Your task to perform on an android device: Go to ESPN.com Image 0: 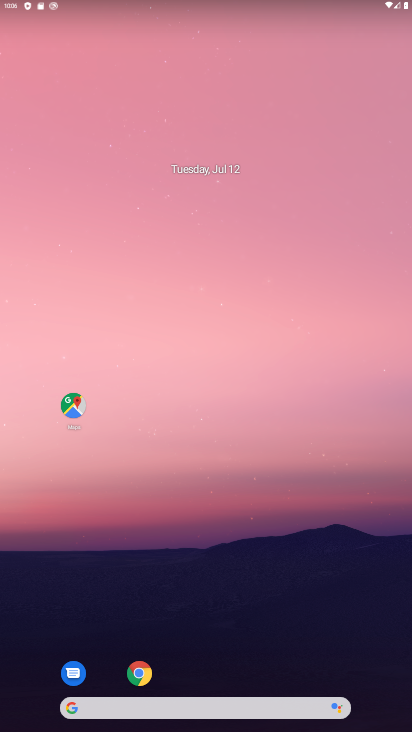
Step 0: drag from (257, 503) to (244, 95)
Your task to perform on an android device: Go to ESPN.com Image 1: 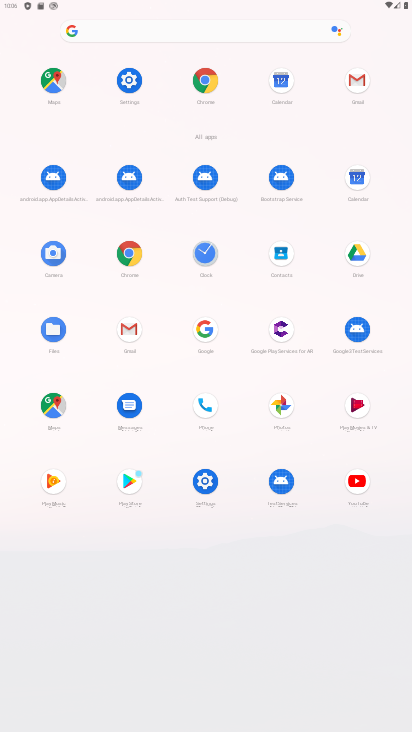
Step 1: click (205, 80)
Your task to perform on an android device: Go to ESPN.com Image 2: 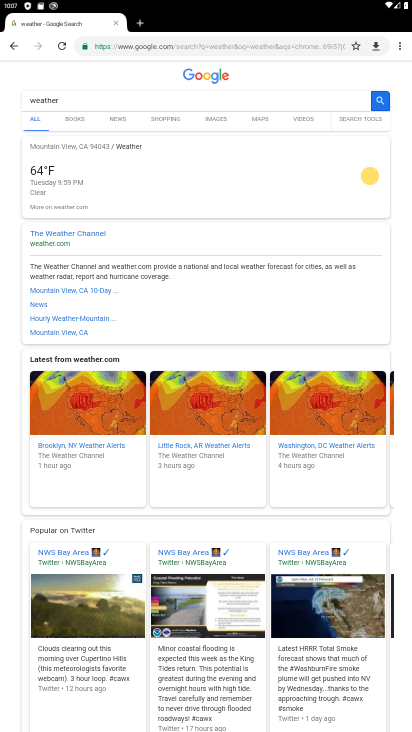
Step 2: click (194, 43)
Your task to perform on an android device: Go to ESPN.com Image 3: 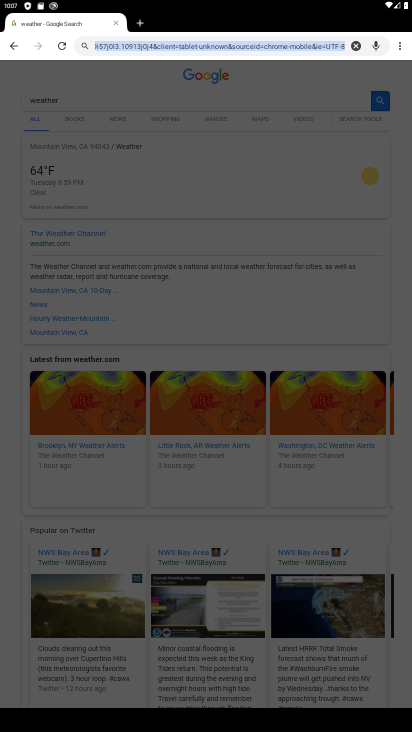
Step 3: type "espn.com"
Your task to perform on an android device: Go to ESPN.com Image 4: 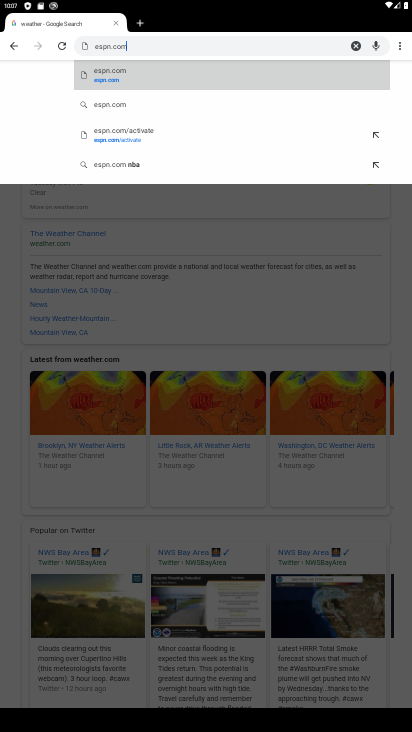
Step 4: click (105, 82)
Your task to perform on an android device: Go to ESPN.com Image 5: 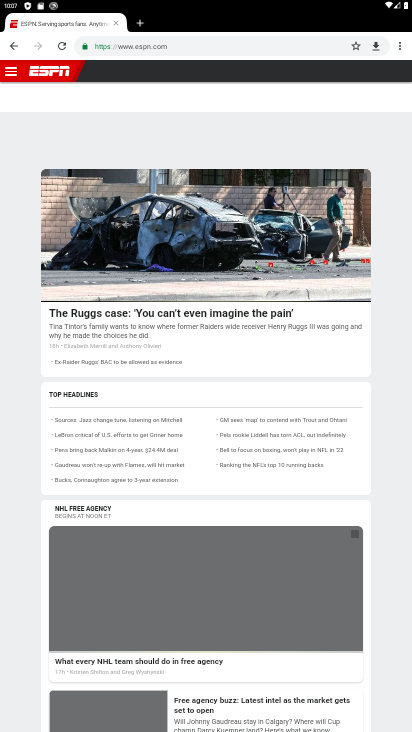
Step 5: task complete